Your task to perform on an android device: What's the weather? Image 0: 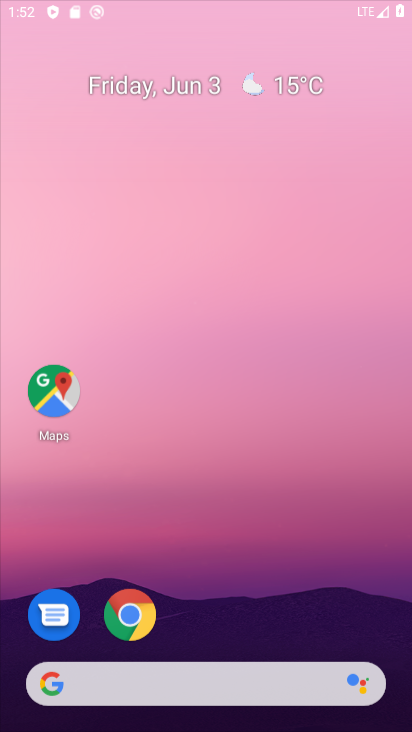
Step 0: click (192, 241)
Your task to perform on an android device: What's the weather? Image 1: 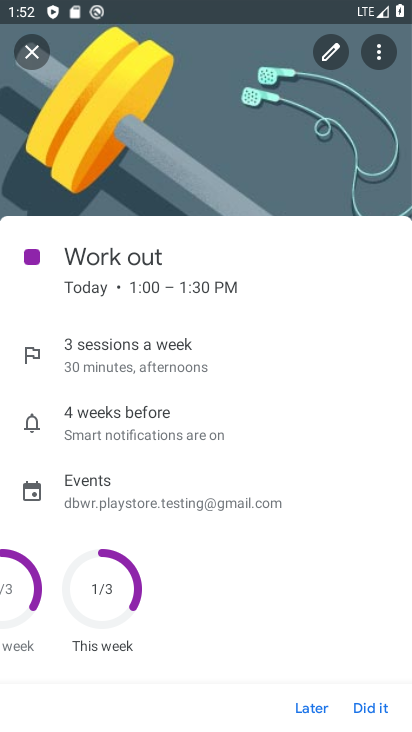
Step 1: click (379, 720)
Your task to perform on an android device: What's the weather? Image 2: 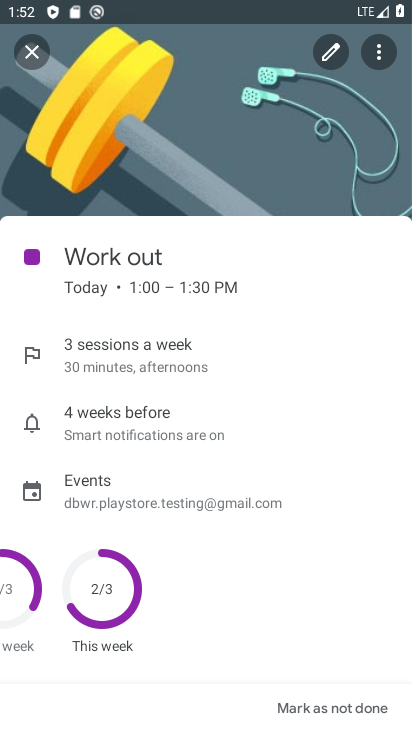
Step 2: press home button
Your task to perform on an android device: What's the weather? Image 3: 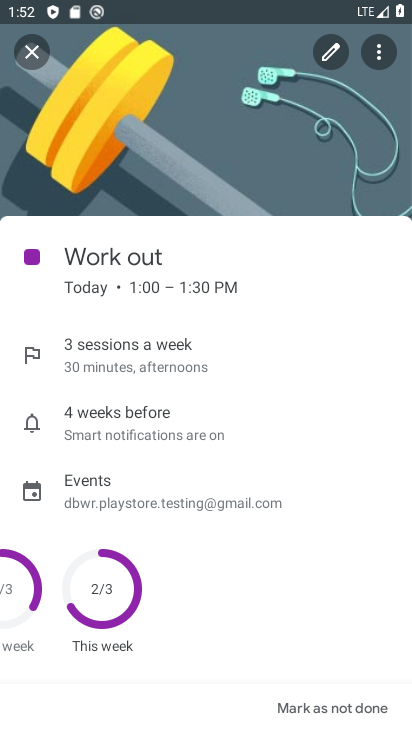
Step 3: press home button
Your task to perform on an android device: What's the weather? Image 4: 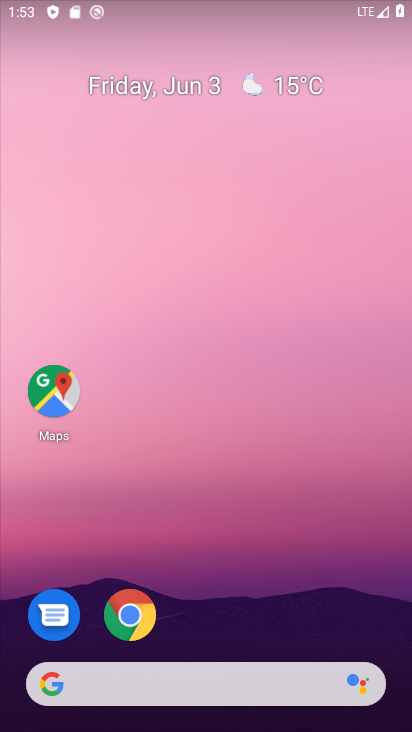
Step 4: drag from (198, 576) to (190, 16)
Your task to perform on an android device: What's the weather? Image 5: 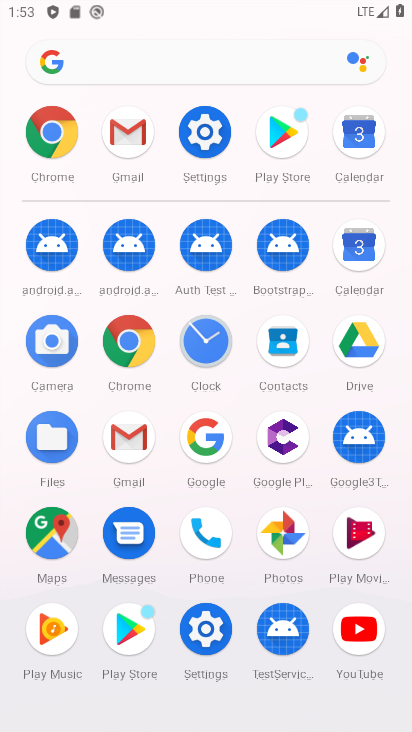
Step 5: click (134, 73)
Your task to perform on an android device: What's the weather? Image 6: 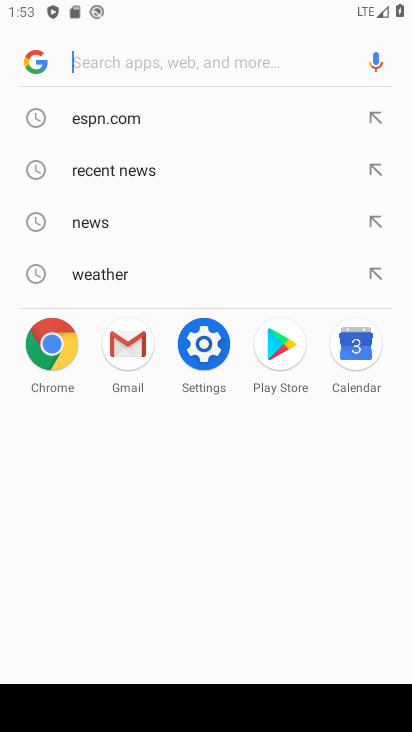
Step 6: type "weather?"
Your task to perform on an android device: What's the weather? Image 7: 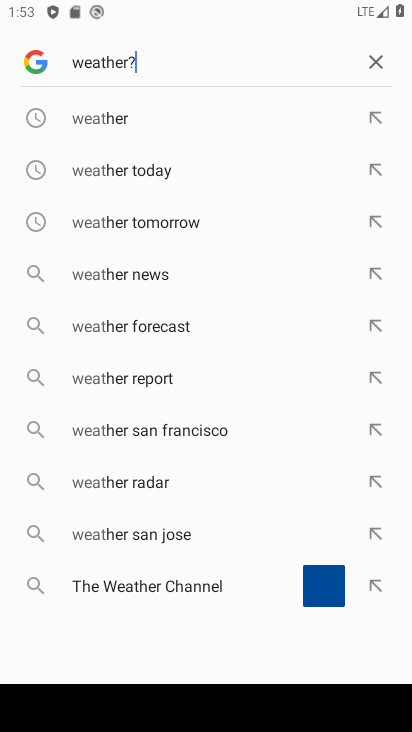
Step 7: type ""
Your task to perform on an android device: What's the weather? Image 8: 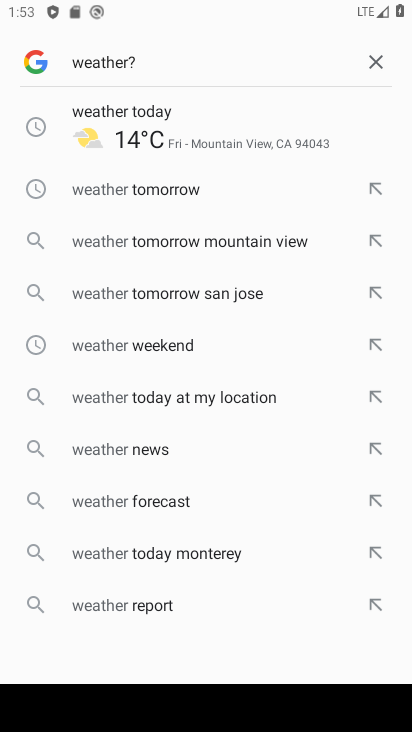
Step 8: click (129, 114)
Your task to perform on an android device: What's the weather? Image 9: 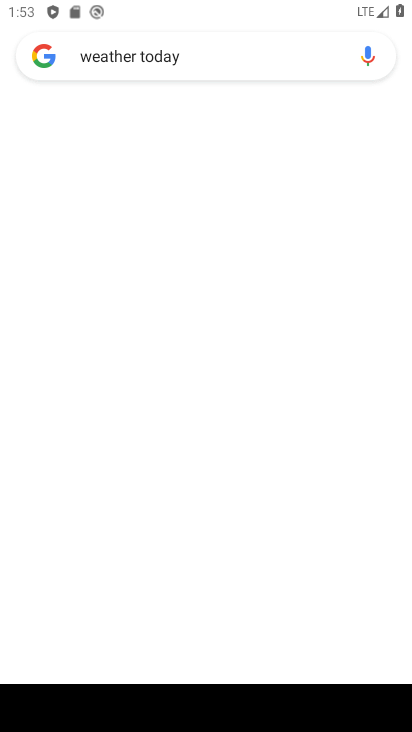
Step 9: task complete